Your task to perform on an android device: see tabs open on other devices in the chrome app Image 0: 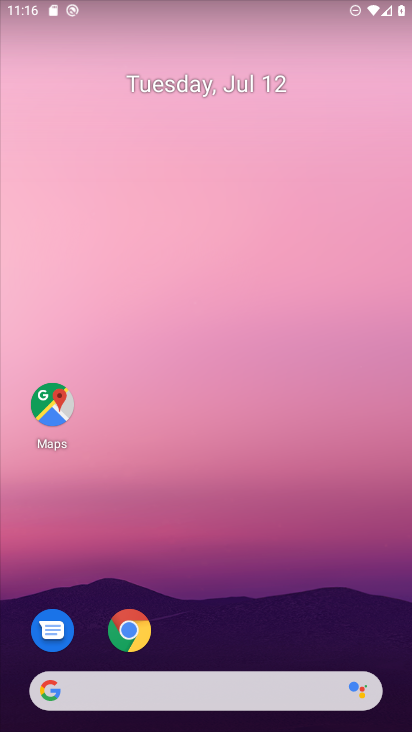
Step 0: click (133, 634)
Your task to perform on an android device: see tabs open on other devices in the chrome app Image 1: 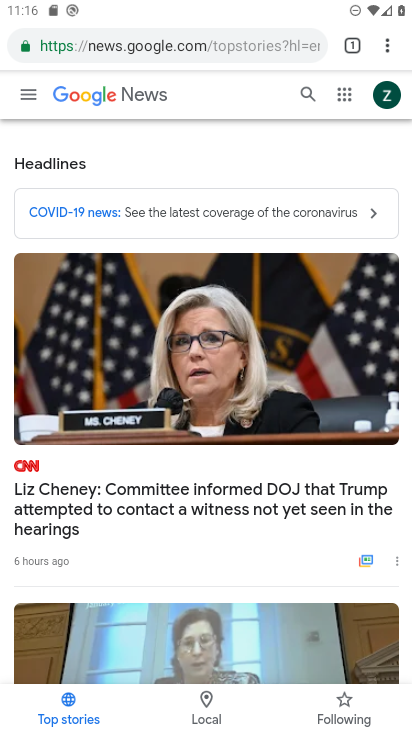
Step 1: task complete